Your task to perform on an android device: turn off translation in the chrome app Image 0: 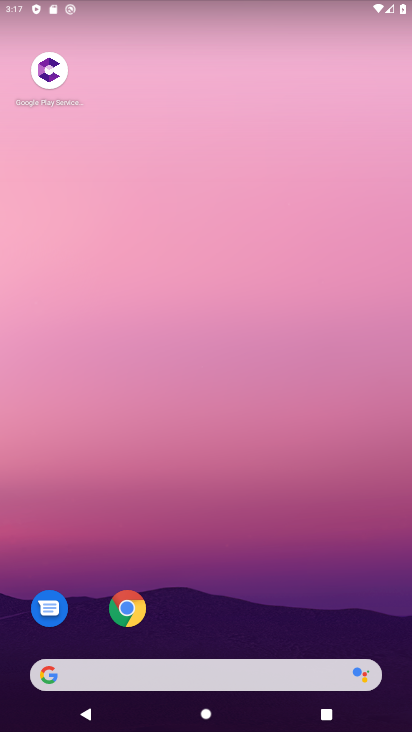
Step 0: click (129, 609)
Your task to perform on an android device: turn off translation in the chrome app Image 1: 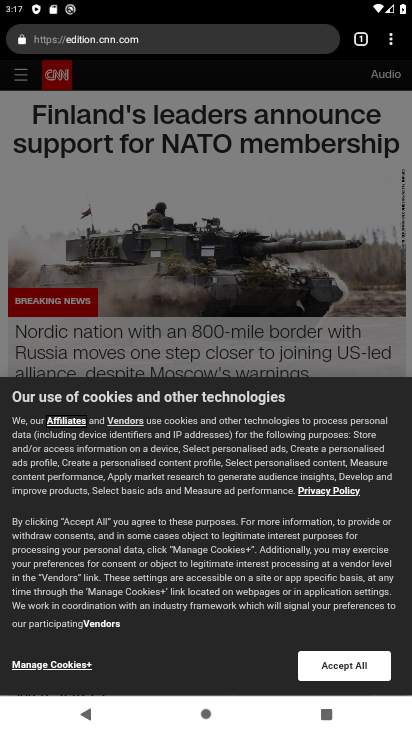
Step 1: click (386, 37)
Your task to perform on an android device: turn off translation in the chrome app Image 2: 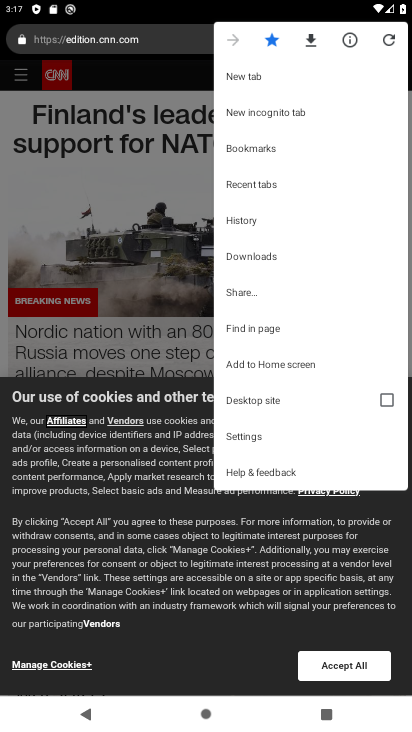
Step 2: click (249, 432)
Your task to perform on an android device: turn off translation in the chrome app Image 3: 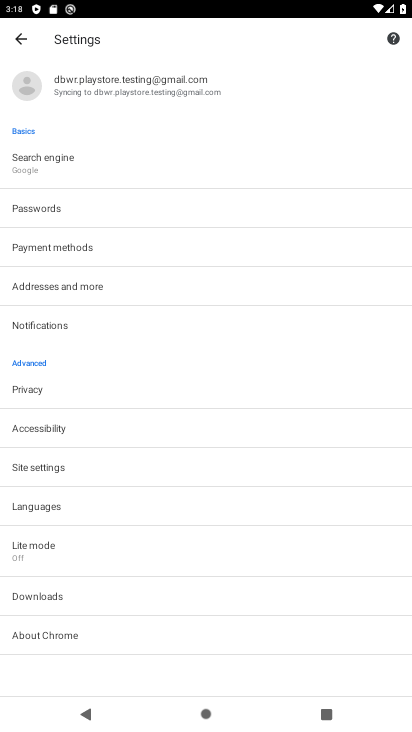
Step 3: click (102, 500)
Your task to perform on an android device: turn off translation in the chrome app Image 4: 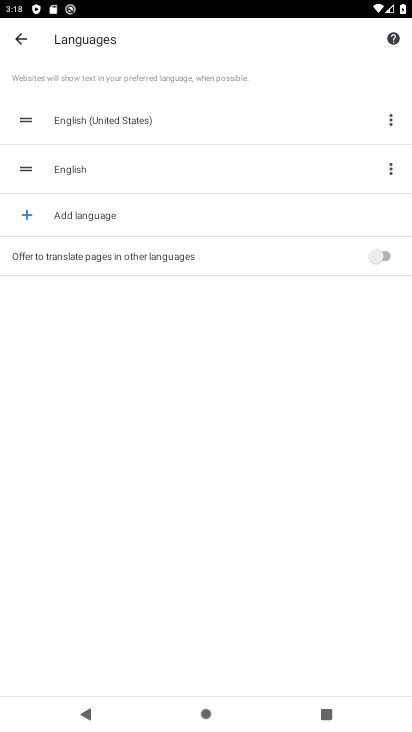
Step 4: task complete